Your task to perform on an android device: Open Yahoo.com Image 0: 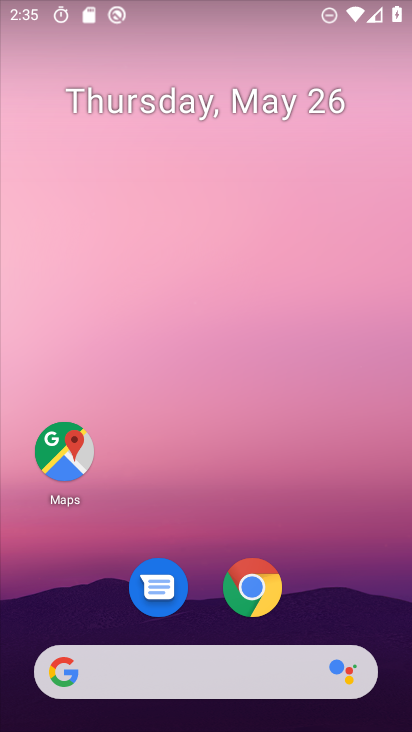
Step 0: drag from (344, 555) to (309, 129)
Your task to perform on an android device: Open Yahoo.com Image 1: 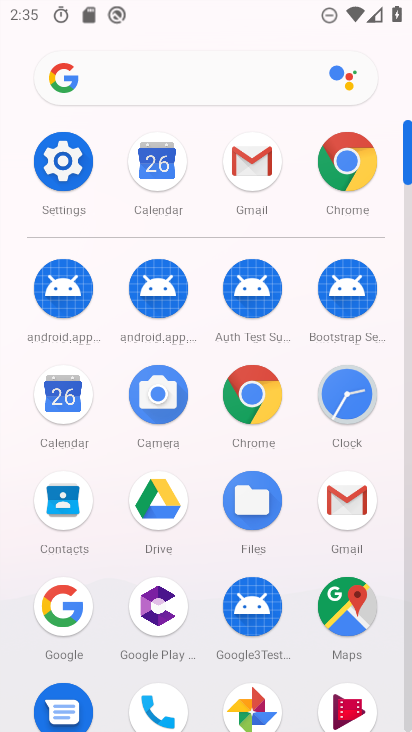
Step 1: click (251, 390)
Your task to perform on an android device: Open Yahoo.com Image 2: 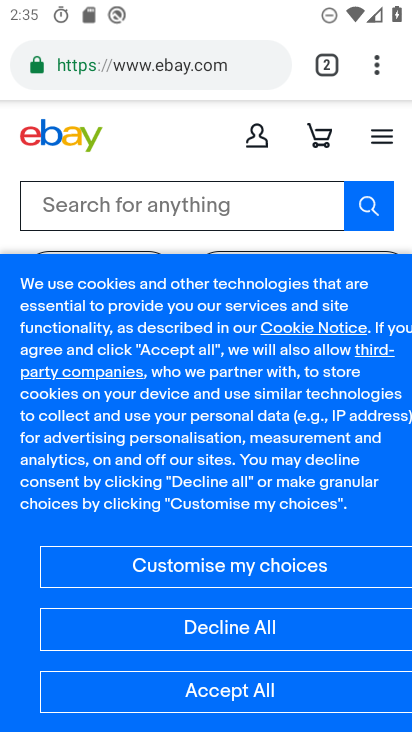
Step 2: click (177, 65)
Your task to perform on an android device: Open Yahoo.com Image 3: 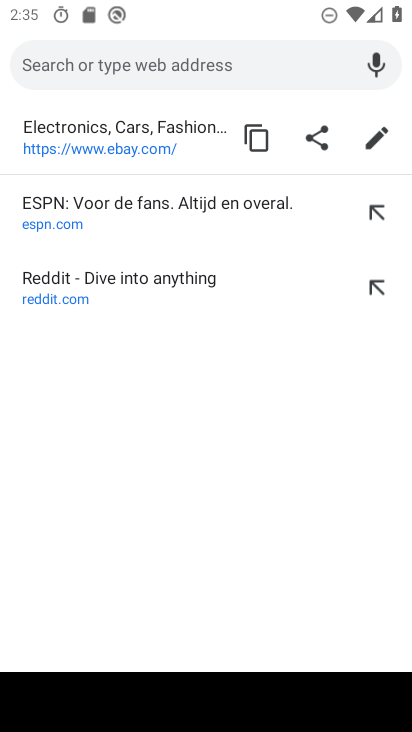
Step 3: type "yahoo.com"
Your task to perform on an android device: Open Yahoo.com Image 4: 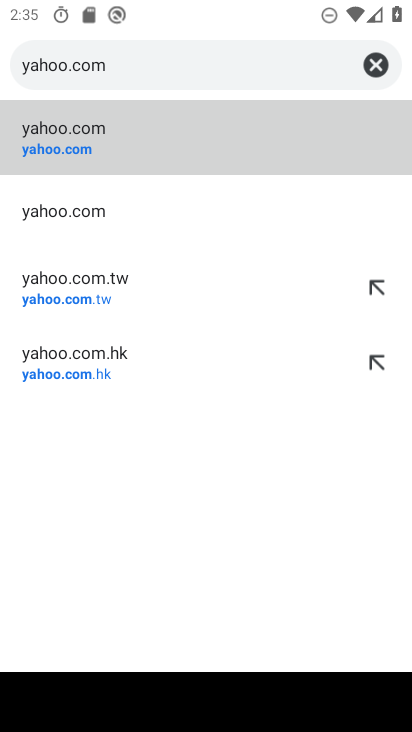
Step 4: click (76, 146)
Your task to perform on an android device: Open Yahoo.com Image 5: 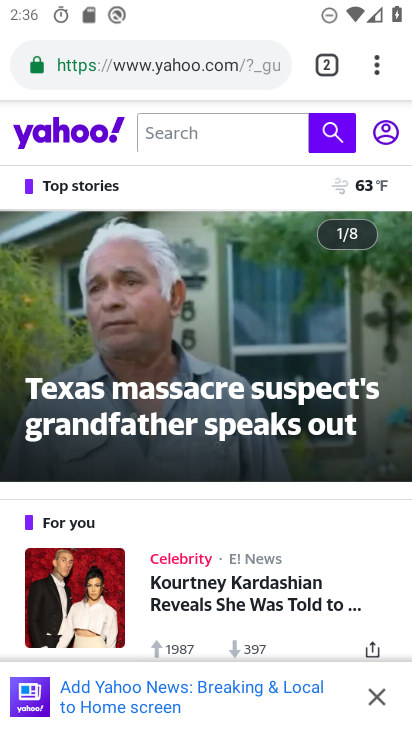
Step 5: task complete